Your task to perform on an android device: add a contact in the contacts app Image 0: 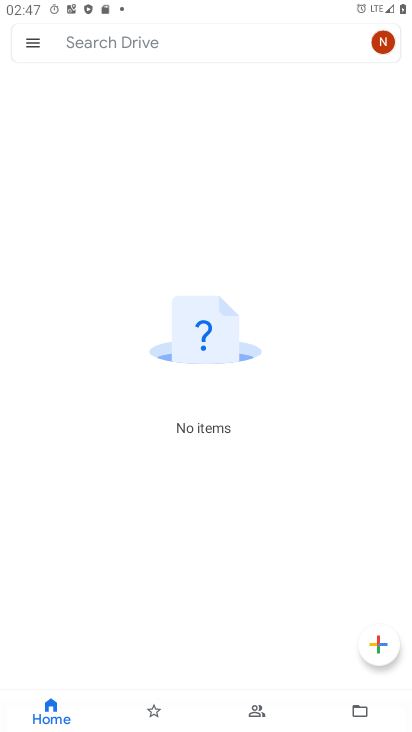
Step 0: press home button
Your task to perform on an android device: add a contact in the contacts app Image 1: 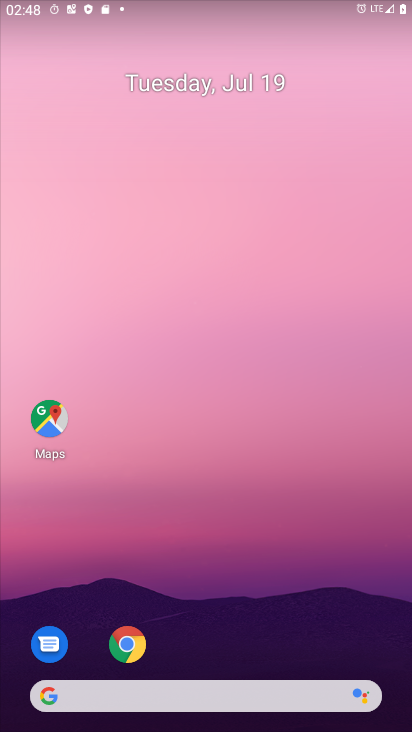
Step 1: drag from (214, 720) to (204, 170)
Your task to perform on an android device: add a contact in the contacts app Image 2: 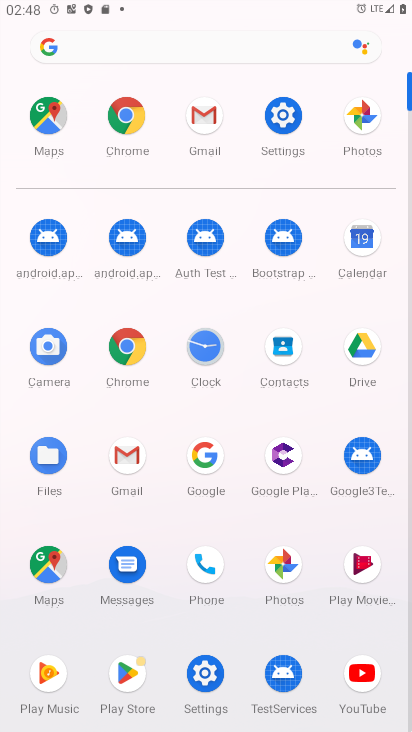
Step 2: click (286, 347)
Your task to perform on an android device: add a contact in the contacts app Image 3: 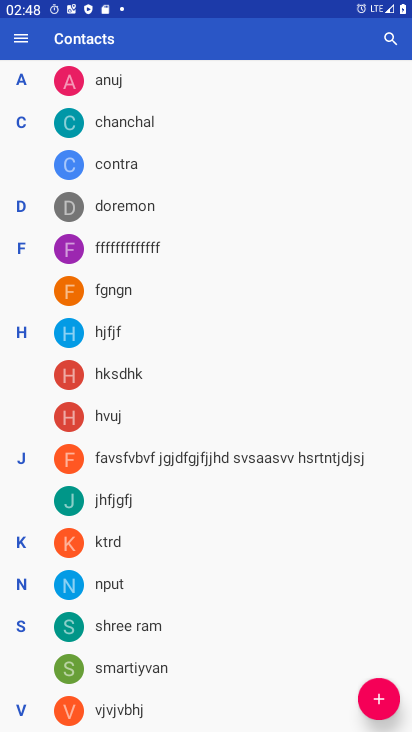
Step 3: click (380, 696)
Your task to perform on an android device: add a contact in the contacts app Image 4: 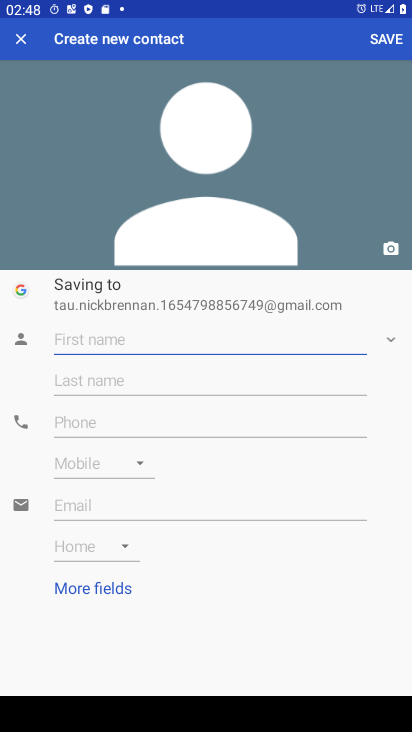
Step 4: type "lakshman"
Your task to perform on an android device: add a contact in the contacts app Image 5: 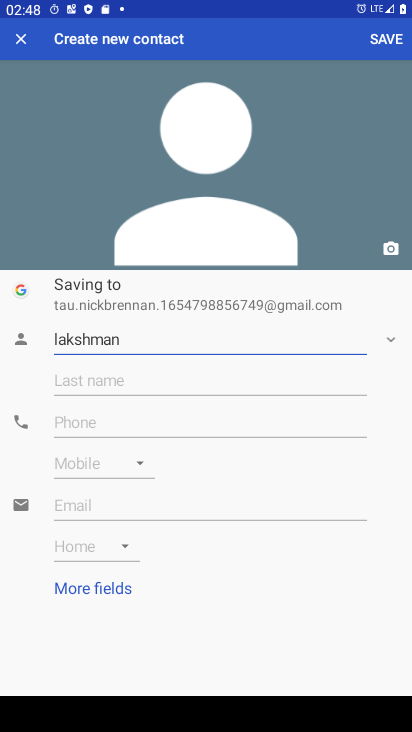
Step 5: click (60, 336)
Your task to perform on an android device: add a contact in the contacts app Image 6: 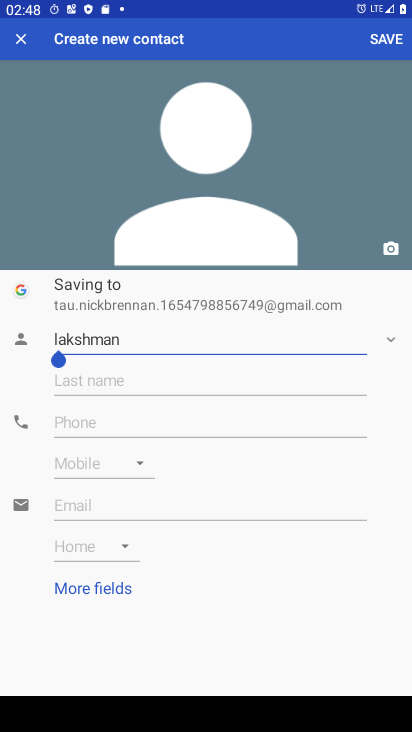
Step 6: click (384, 41)
Your task to perform on an android device: add a contact in the contacts app Image 7: 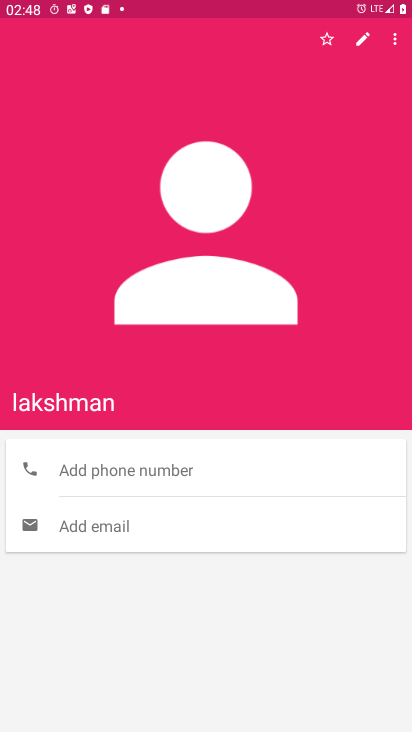
Step 7: task complete